Your task to perform on an android device: turn vacation reply on in the gmail app Image 0: 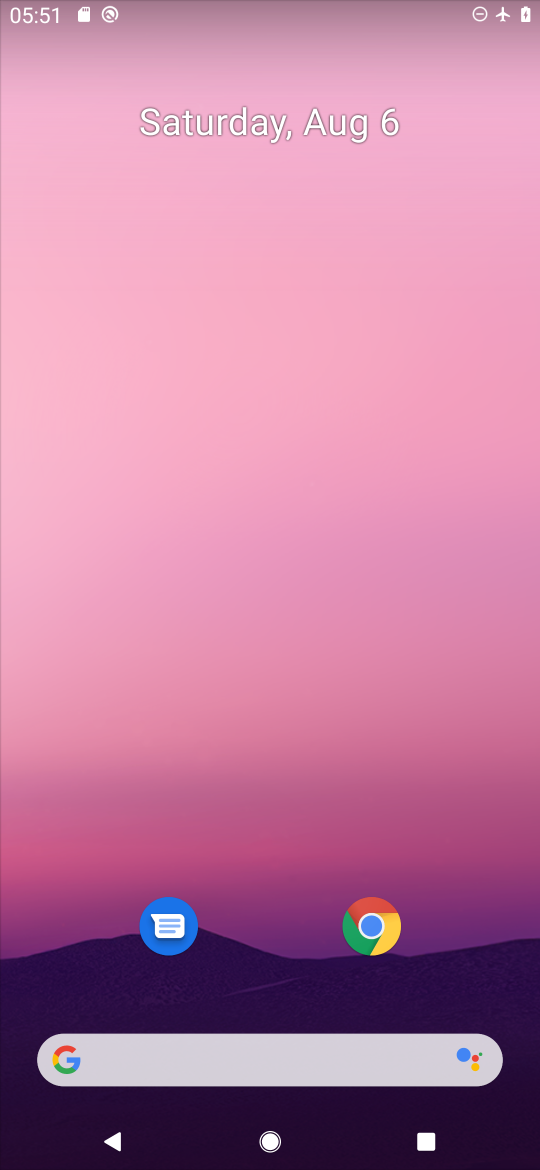
Step 0: drag from (259, 922) to (261, 305)
Your task to perform on an android device: turn vacation reply on in the gmail app Image 1: 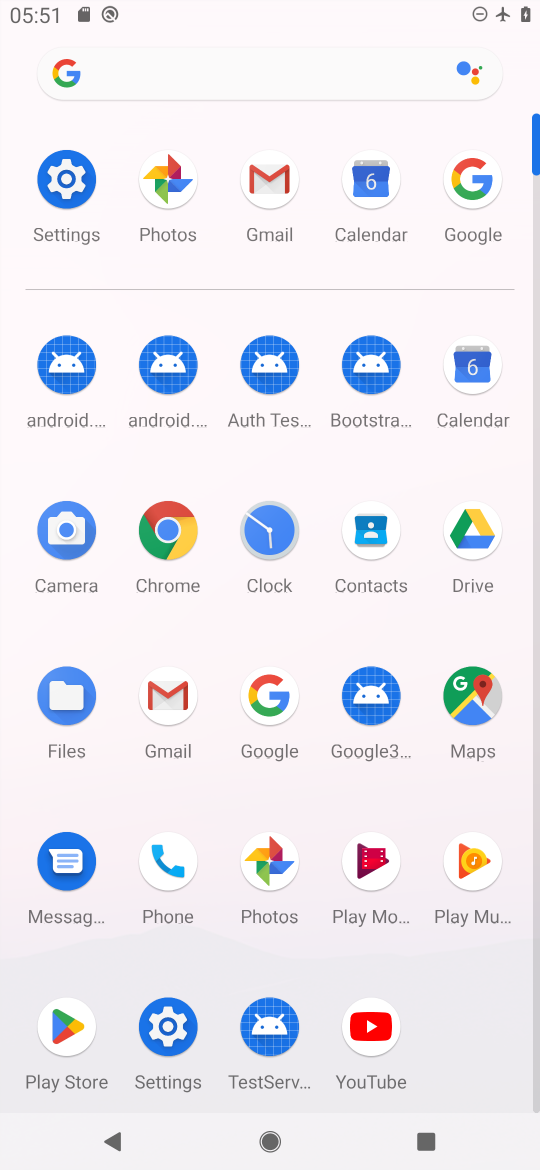
Step 1: click (270, 140)
Your task to perform on an android device: turn vacation reply on in the gmail app Image 2: 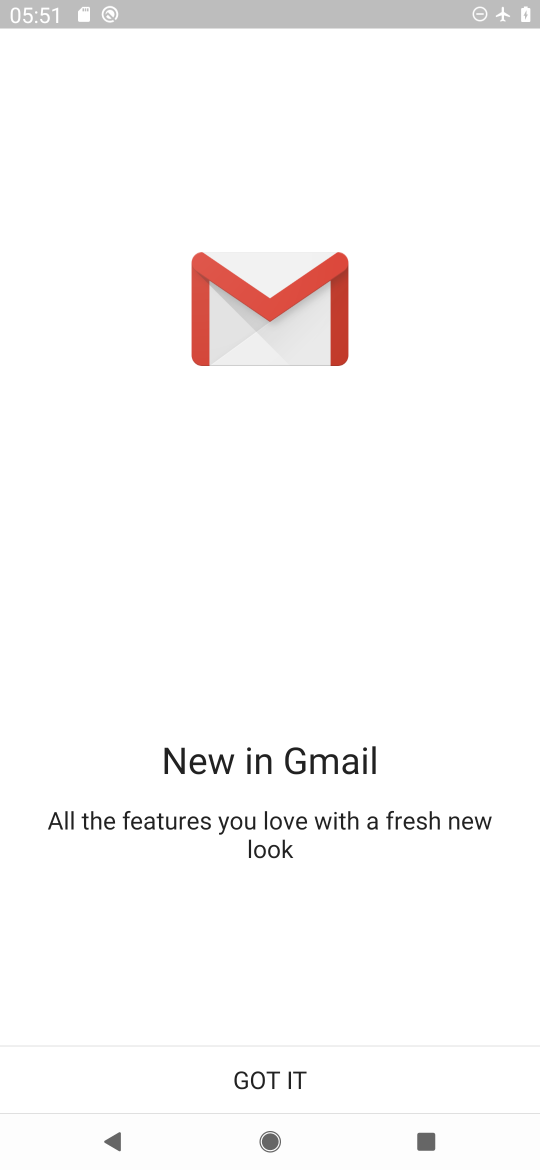
Step 2: click (286, 1079)
Your task to perform on an android device: turn vacation reply on in the gmail app Image 3: 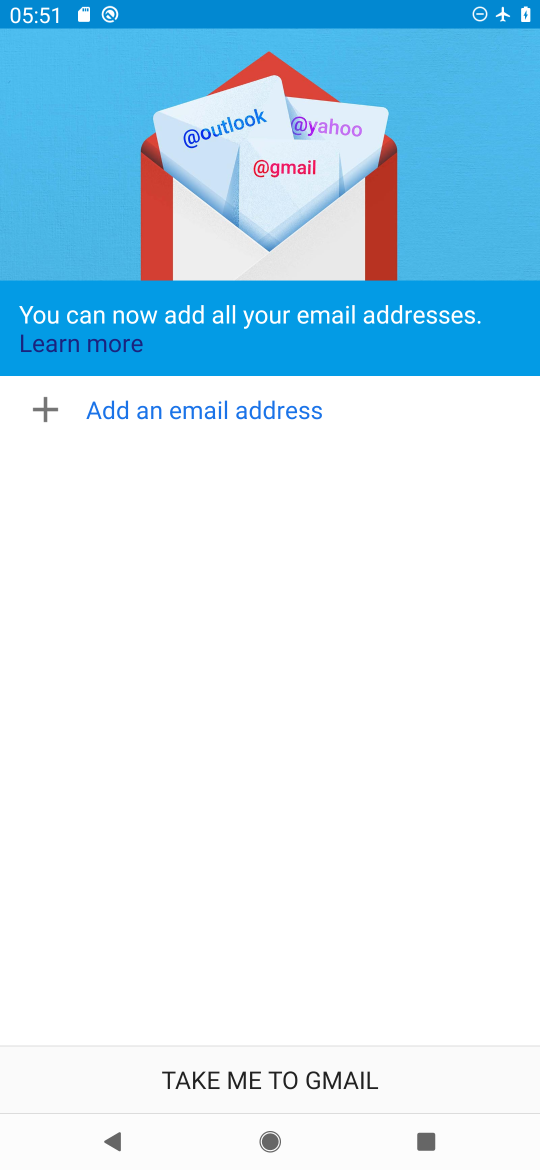
Step 3: click (289, 1079)
Your task to perform on an android device: turn vacation reply on in the gmail app Image 4: 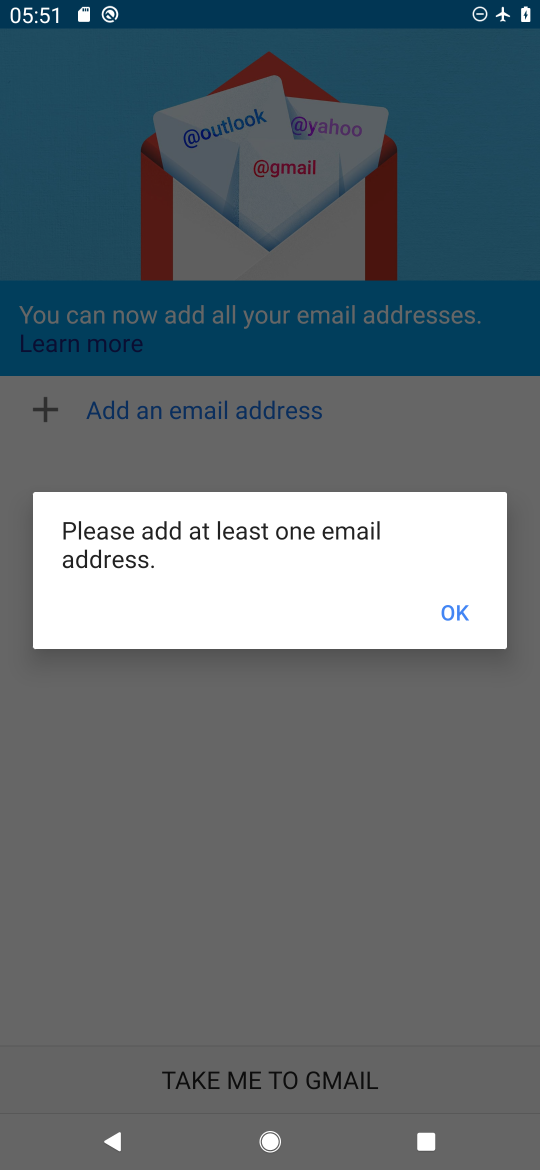
Step 4: task complete